Your task to perform on an android device: Open Maps and search for coffee Image 0: 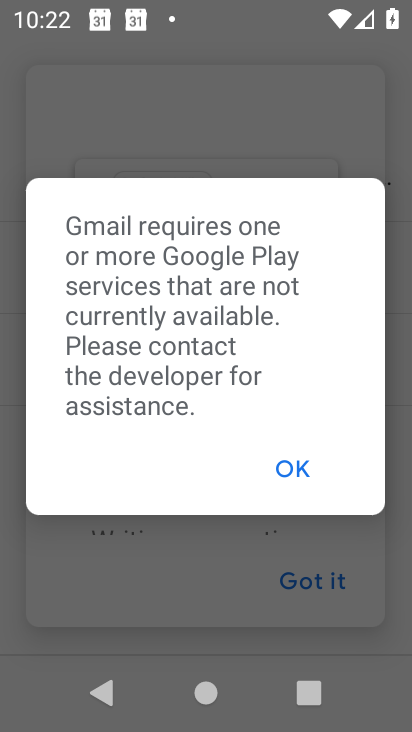
Step 0: press home button
Your task to perform on an android device: Open Maps and search for coffee Image 1: 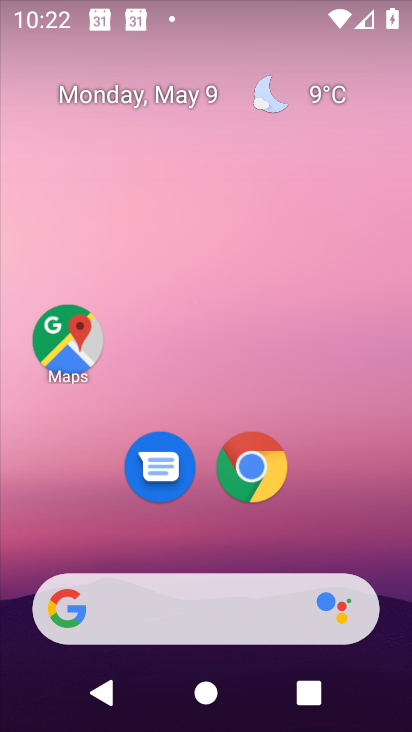
Step 1: click (51, 333)
Your task to perform on an android device: Open Maps and search for coffee Image 2: 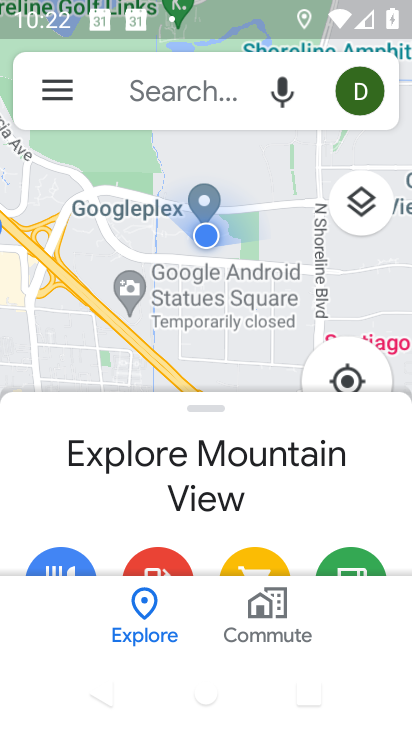
Step 2: click (137, 91)
Your task to perform on an android device: Open Maps and search for coffee Image 3: 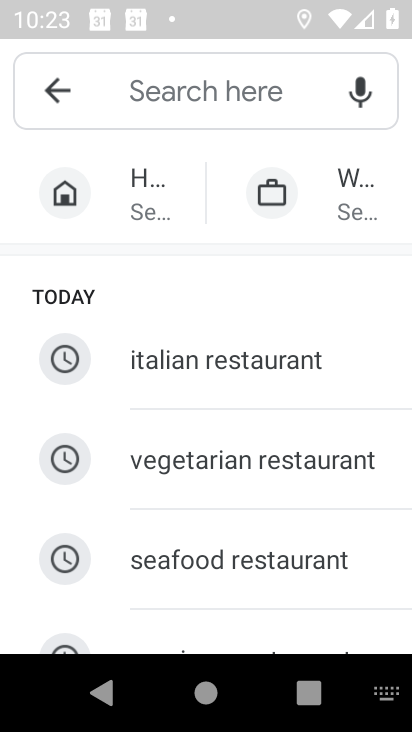
Step 3: type "coffee"
Your task to perform on an android device: Open Maps and search for coffee Image 4: 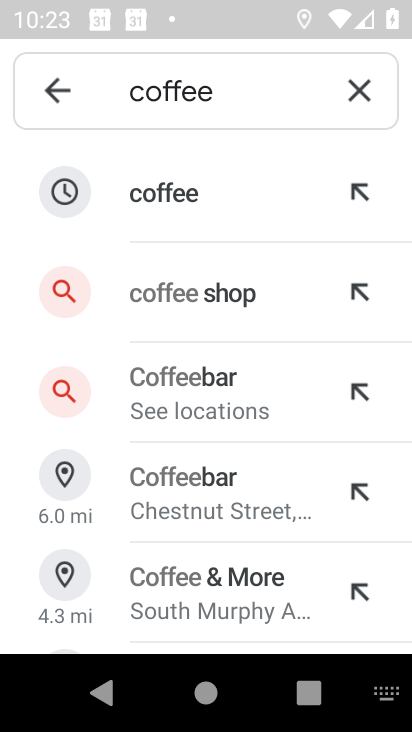
Step 4: click (163, 194)
Your task to perform on an android device: Open Maps and search for coffee Image 5: 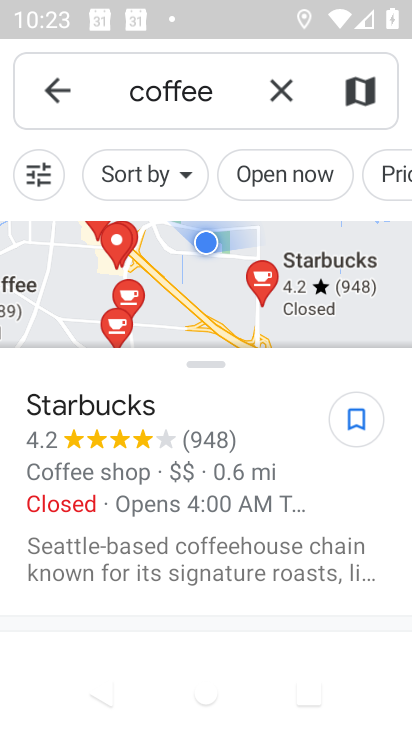
Step 5: task complete